Your task to perform on an android device: see tabs open on other devices in the chrome app Image 0: 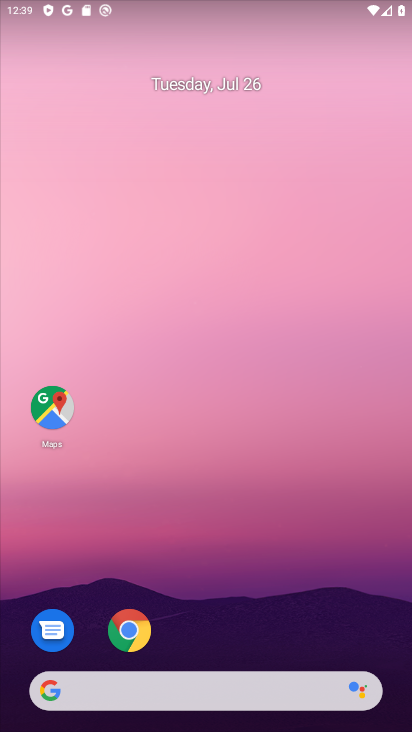
Step 0: click (129, 632)
Your task to perform on an android device: see tabs open on other devices in the chrome app Image 1: 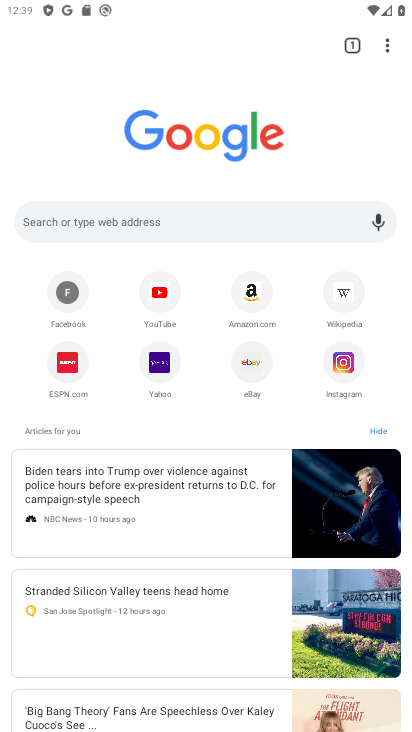
Step 1: click (386, 43)
Your task to perform on an android device: see tabs open on other devices in the chrome app Image 2: 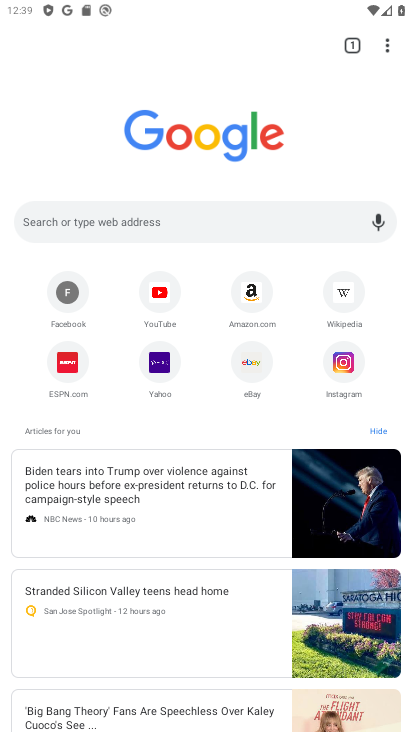
Step 2: click (386, 43)
Your task to perform on an android device: see tabs open on other devices in the chrome app Image 3: 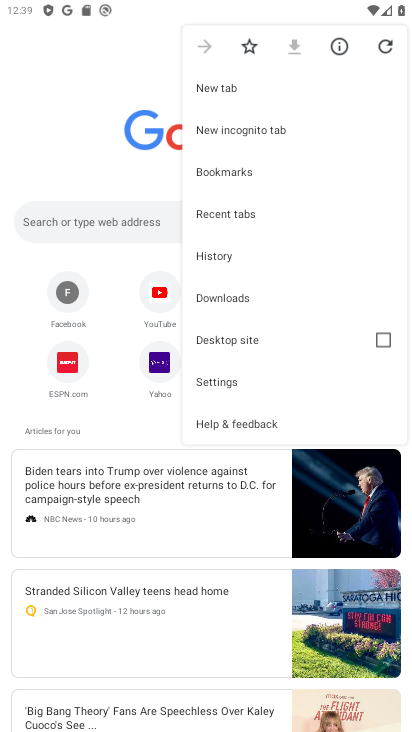
Step 3: click (232, 214)
Your task to perform on an android device: see tabs open on other devices in the chrome app Image 4: 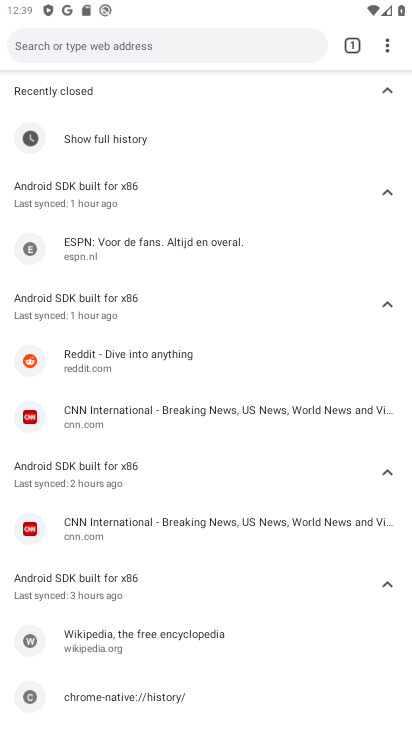
Step 4: task complete